Your task to perform on an android device: turn on translation in the chrome app Image 0: 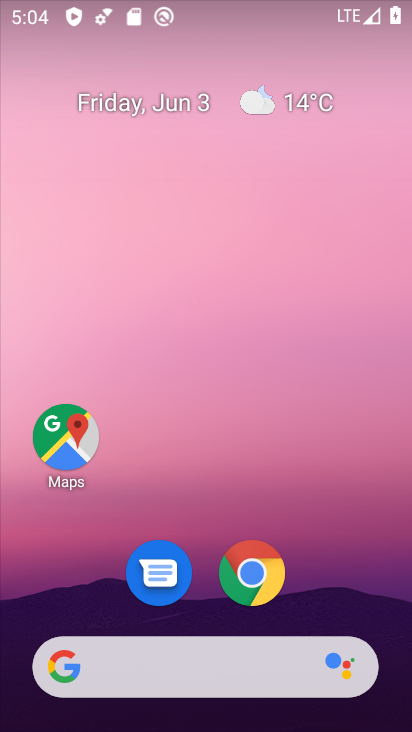
Step 0: click (266, 580)
Your task to perform on an android device: turn on translation in the chrome app Image 1: 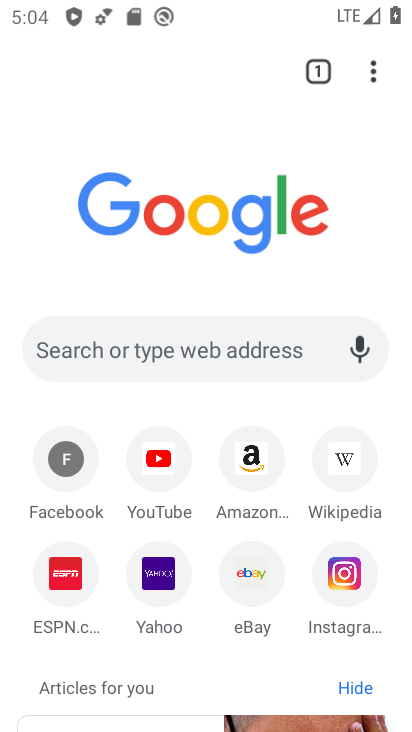
Step 1: click (362, 54)
Your task to perform on an android device: turn on translation in the chrome app Image 2: 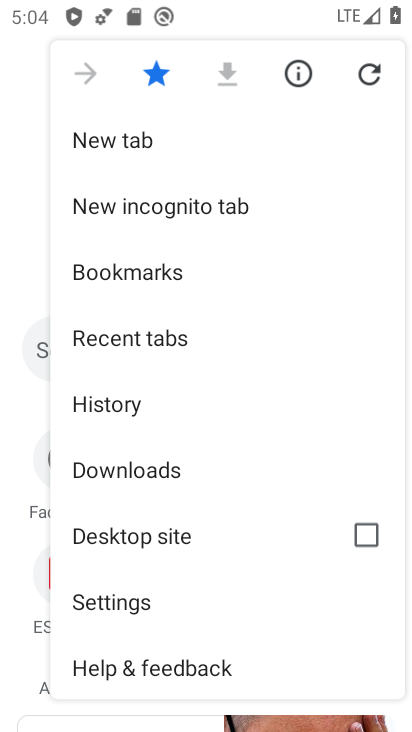
Step 2: drag from (179, 584) to (175, 139)
Your task to perform on an android device: turn on translation in the chrome app Image 3: 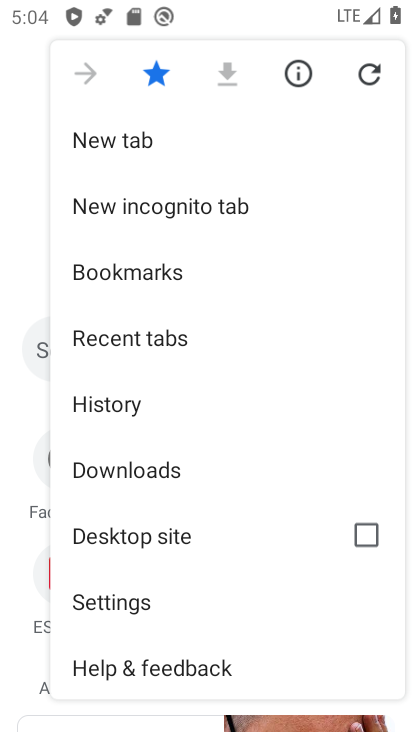
Step 3: click (141, 617)
Your task to perform on an android device: turn on translation in the chrome app Image 4: 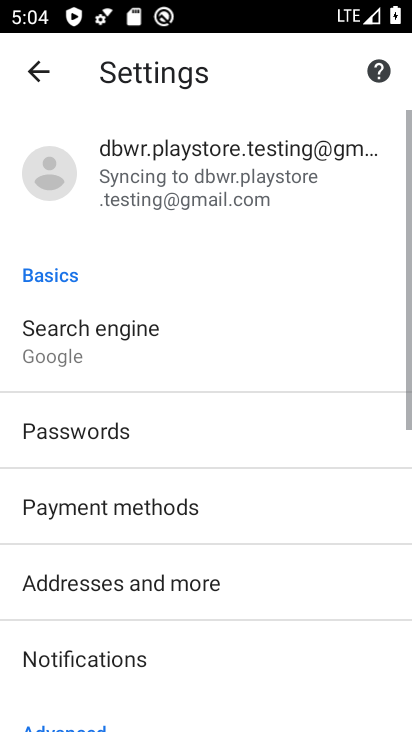
Step 4: drag from (172, 467) to (195, 216)
Your task to perform on an android device: turn on translation in the chrome app Image 5: 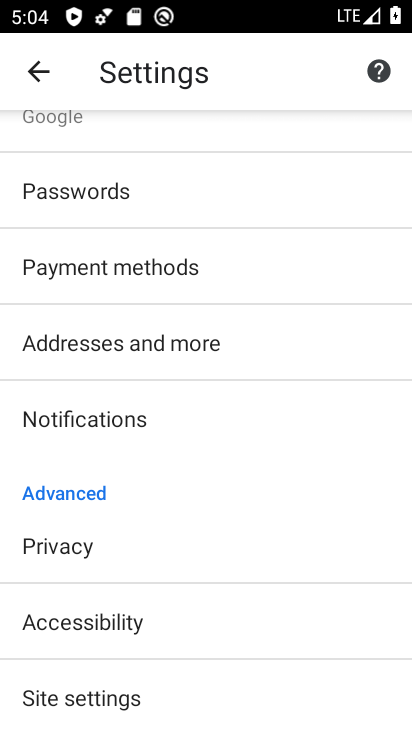
Step 5: drag from (190, 595) to (212, 195)
Your task to perform on an android device: turn on translation in the chrome app Image 6: 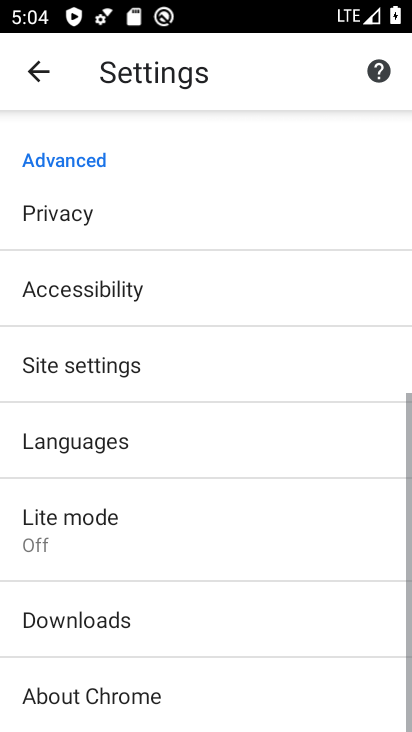
Step 6: drag from (167, 589) to (188, 171)
Your task to perform on an android device: turn on translation in the chrome app Image 7: 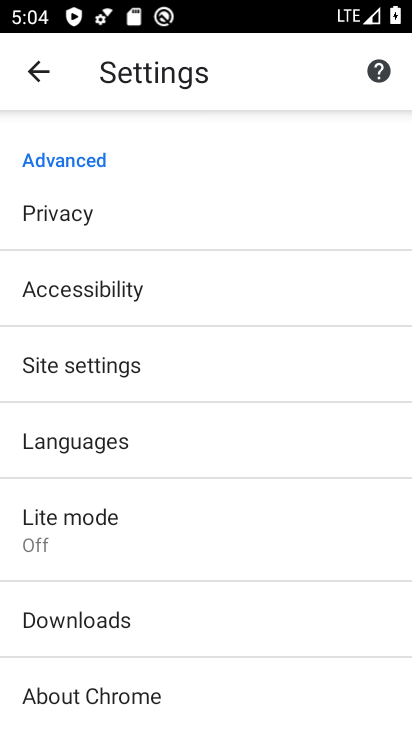
Step 7: click (47, 59)
Your task to perform on an android device: turn on translation in the chrome app Image 8: 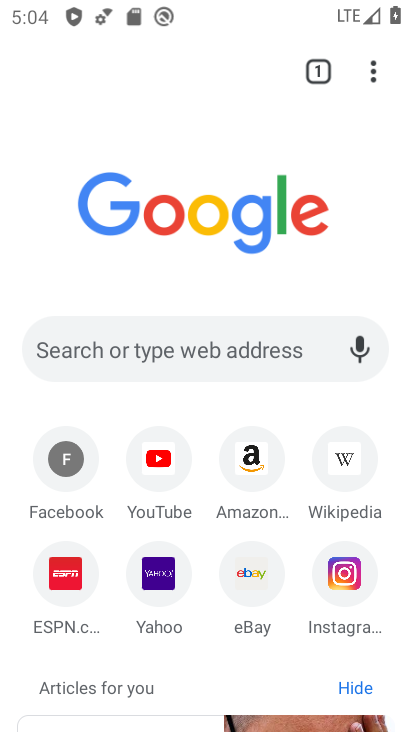
Step 8: click (387, 59)
Your task to perform on an android device: turn on translation in the chrome app Image 9: 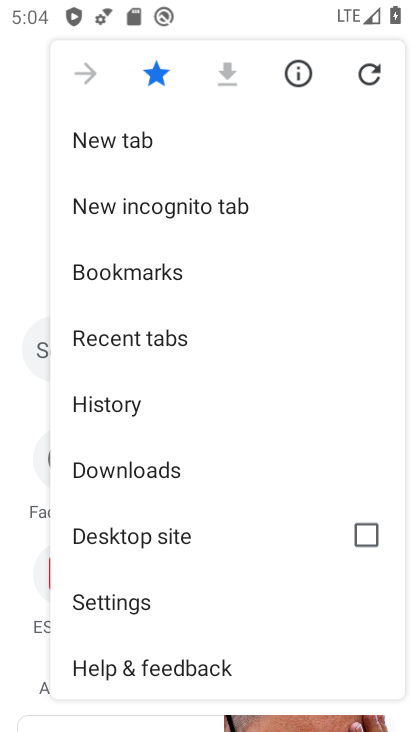
Step 9: drag from (217, 516) to (210, 167)
Your task to perform on an android device: turn on translation in the chrome app Image 10: 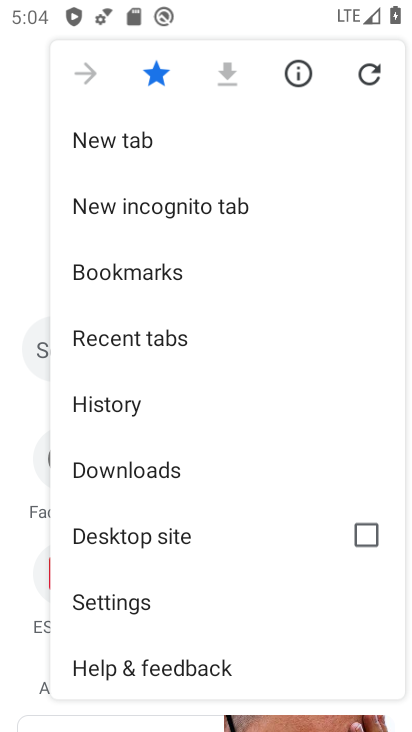
Step 10: drag from (212, 154) to (236, 602)
Your task to perform on an android device: turn on translation in the chrome app Image 11: 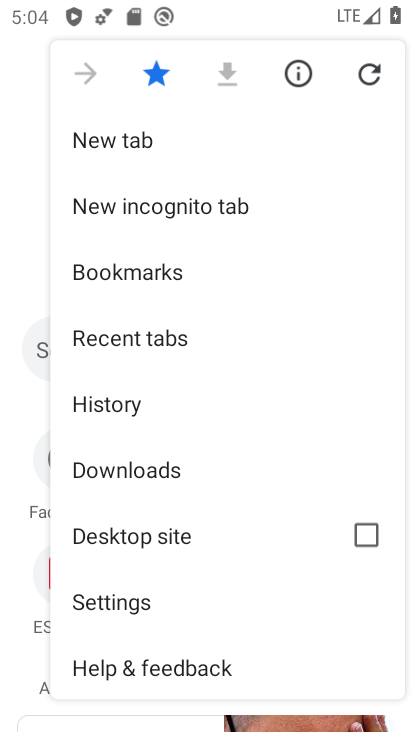
Step 11: click (188, 583)
Your task to perform on an android device: turn on translation in the chrome app Image 12: 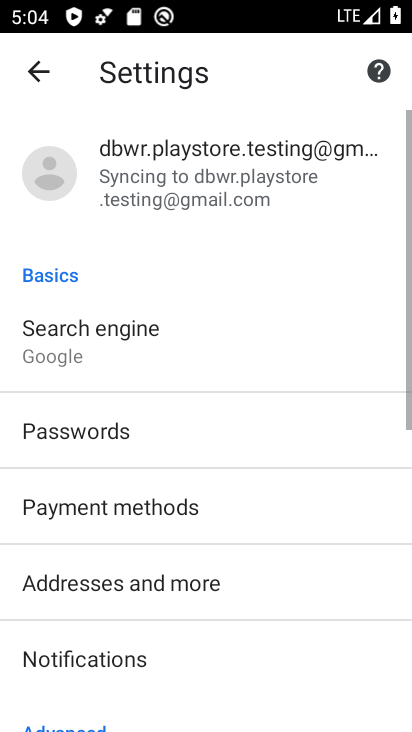
Step 12: drag from (178, 589) to (206, 185)
Your task to perform on an android device: turn on translation in the chrome app Image 13: 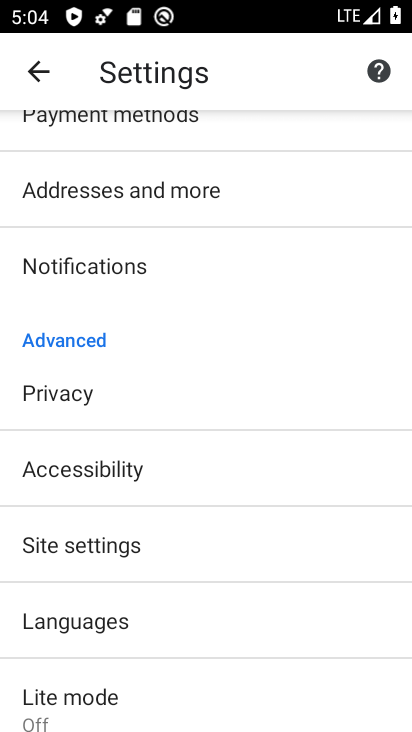
Step 13: drag from (177, 675) to (209, 258)
Your task to perform on an android device: turn on translation in the chrome app Image 14: 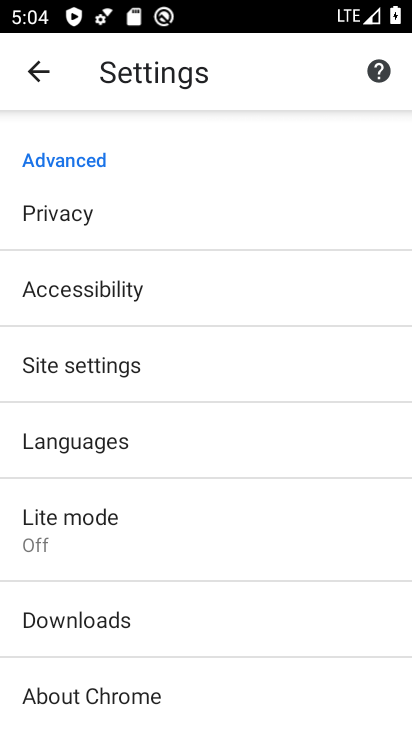
Step 14: click (121, 448)
Your task to perform on an android device: turn on translation in the chrome app Image 15: 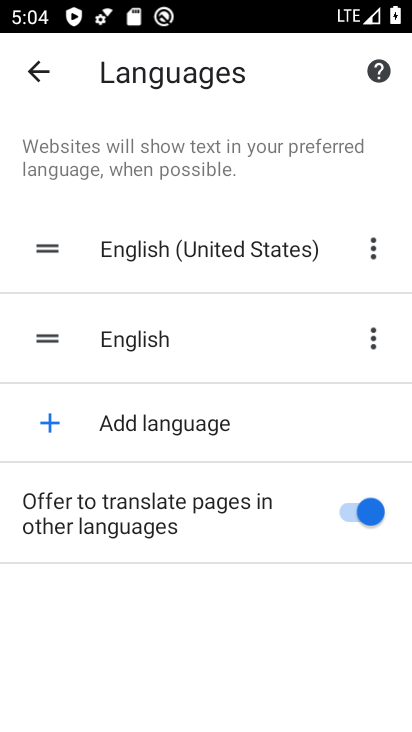
Step 15: task complete